Your task to perform on an android device: visit the assistant section in the google photos Image 0: 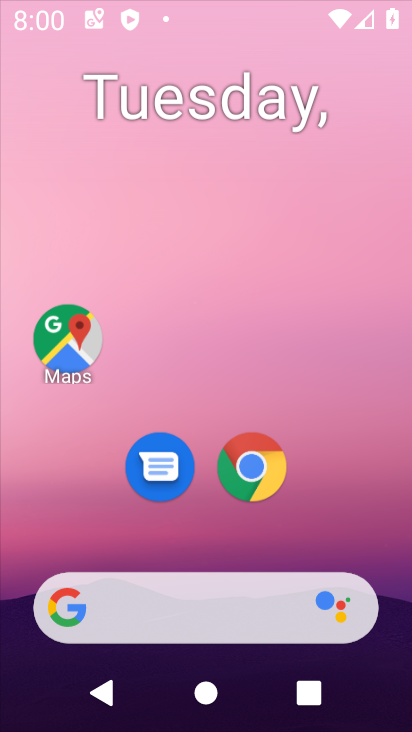
Step 0: drag from (389, 516) to (282, 127)
Your task to perform on an android device: visit the assistant section in the google photos Image 1: 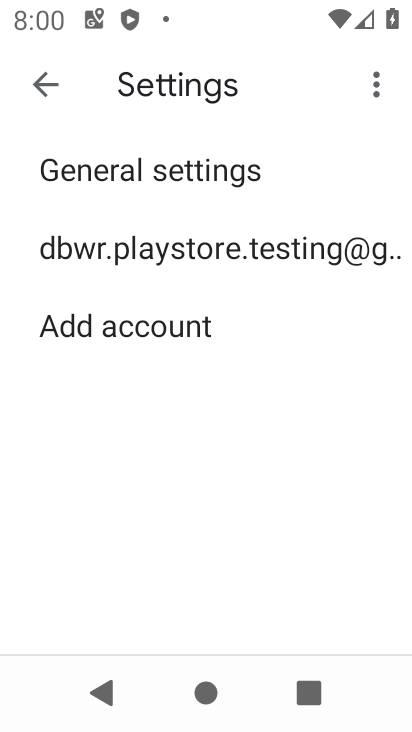
Step 1: press home button
Your task to perform on an android device: visit the assistant section in the google photos Image 2: 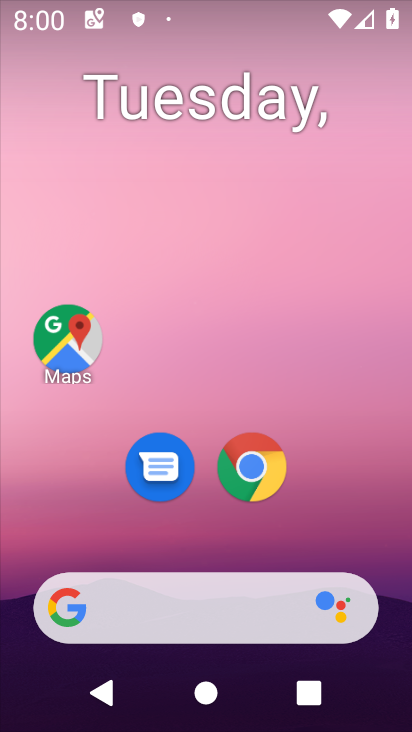
Step 2: drag from (347, 524) to (255, 104)
Your task to perform on an android device: visit the assistant section in the google photos Image 3: 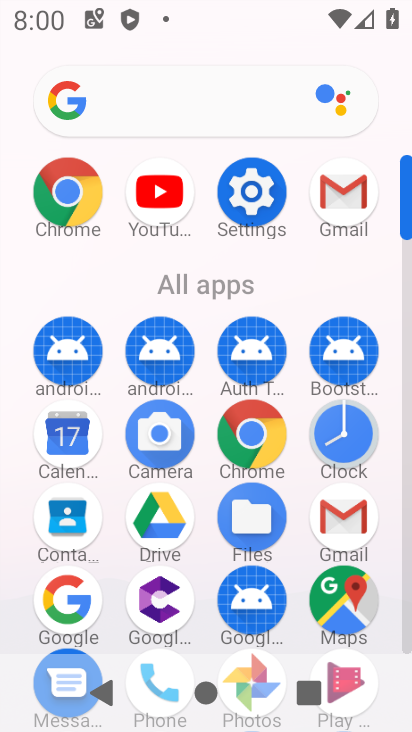
Step 3: click (409, 639)
Your task to perform on an android device: visit the assistant section in the google photos Image 4: 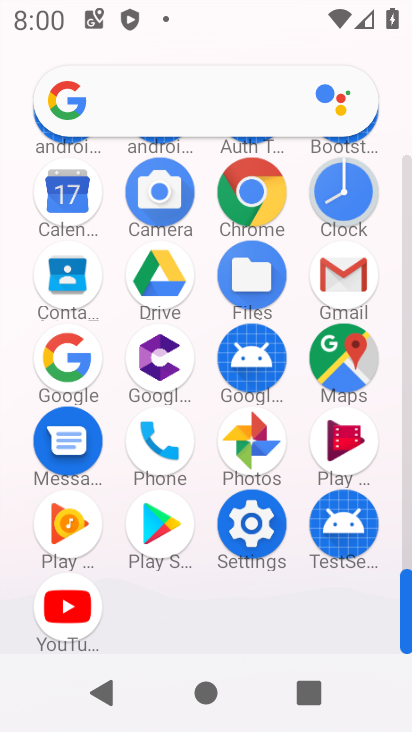
Step 4: click (251, 447)
Your task to perform on an android device: visit the assistant section in the google photos Image 5: 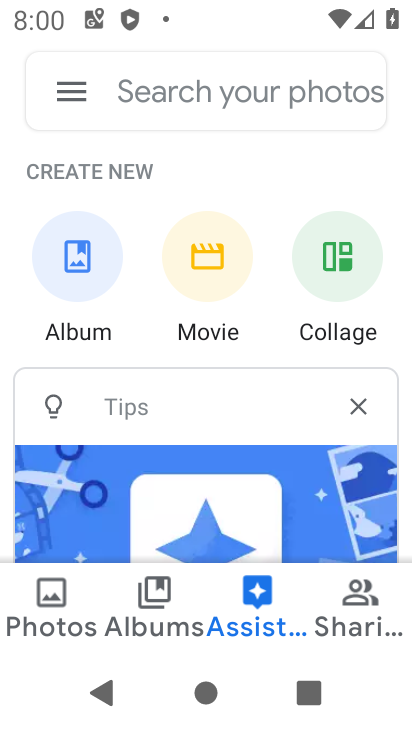
Step 5: task complete